Your task to perform on an android device: What's on my calendar today? Image 0: 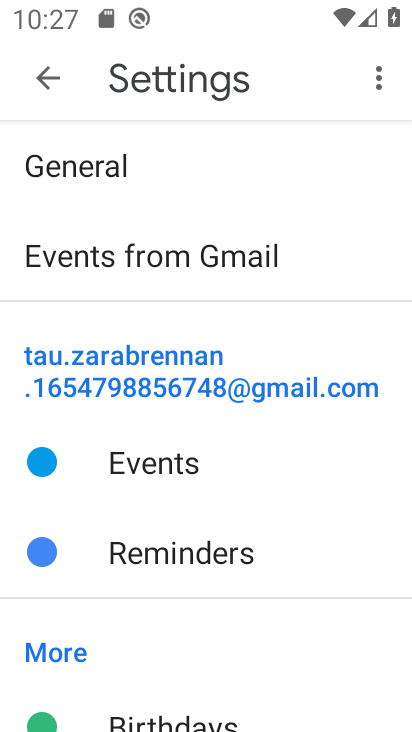
Step 0: press home button
Your task to perform on an android device: What's on my calendar today? Image 1: 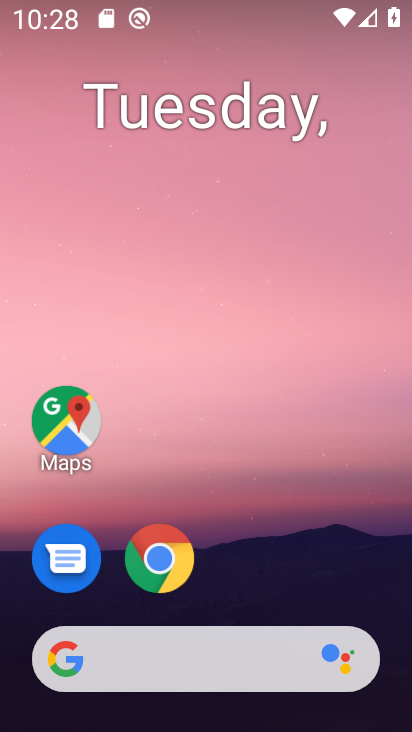
Step 1: drag from (354, 578) to (376, 103)
Your task to perform on an android device: What's on my calendar today? Image 2: 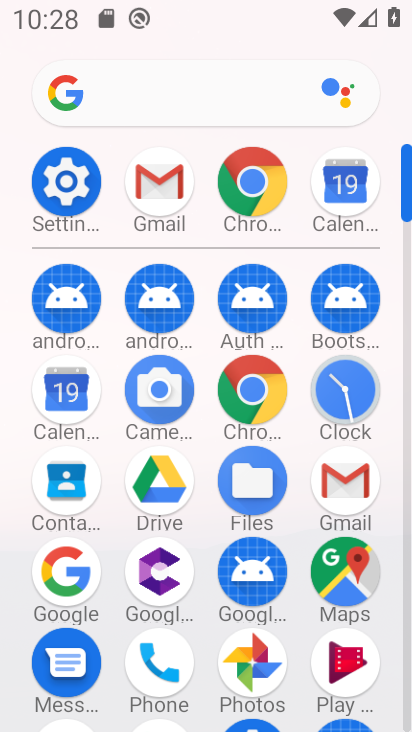
Step 2: click (79, 400)
Your task to perform on an android device: What's on my calendar today? Image 3: 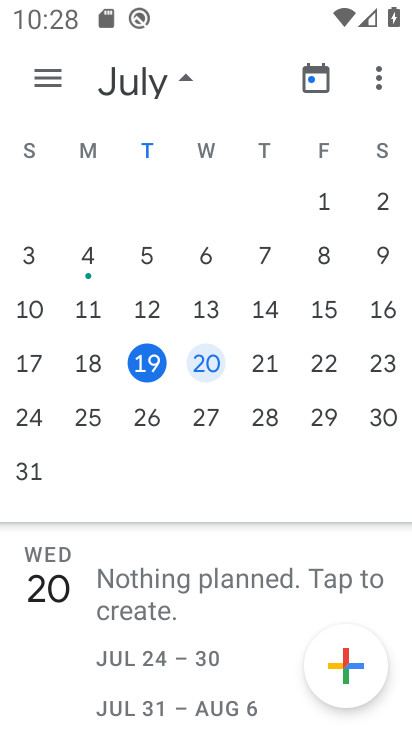
Step 3: task complete